Your task to perform on an android device: change the clock display to digital Image 0: 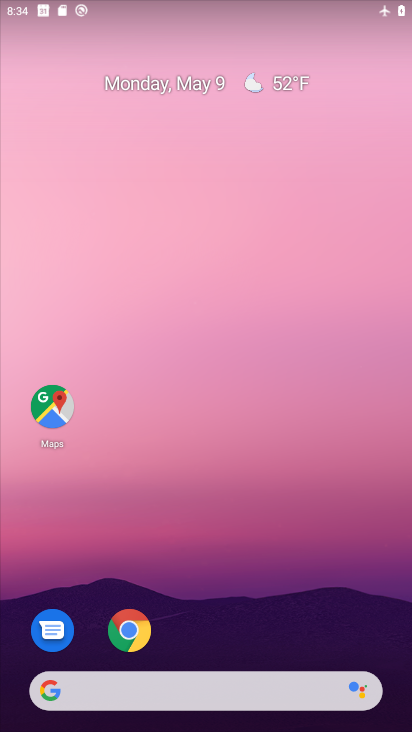
Step 0: drag from (232, 659) to (301, 129)
Your task to perform on an android device: change the clock display to digital Image 1: 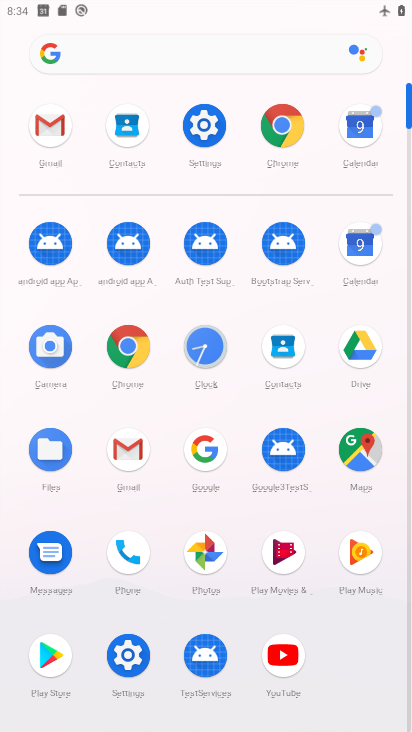
Step 1: click (202, 352)
Your task to perform on an android device: change the clock display to digital Image 2: 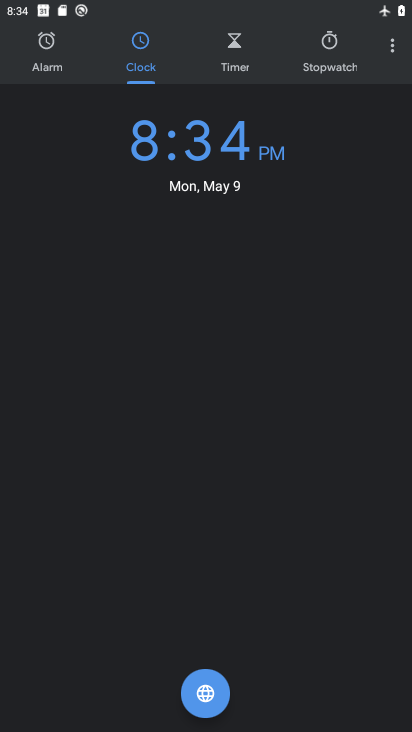
Step 2: click (386, 50)
Your task to perform on an android device: change the clock display to digital Image 3: 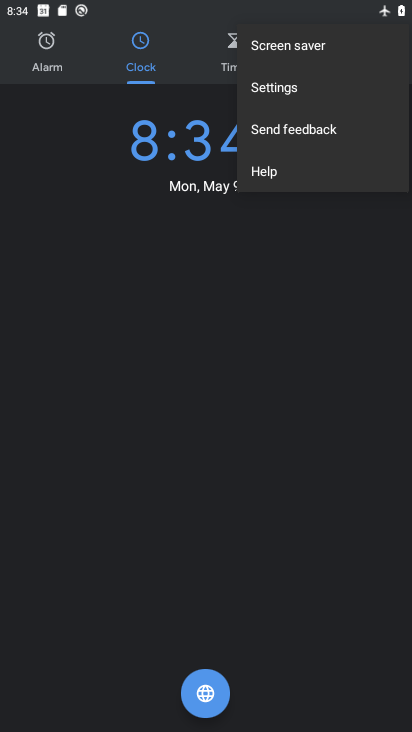
Step 3: click (281, 97)
Your task to perform on an android device: change the clock display to digital Image 4: 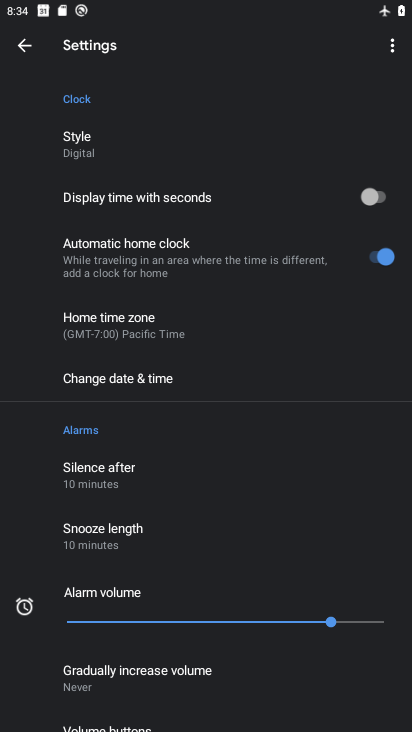
Step 4: click (107, 146)
Your task to perform on an android device: change the clock display to digital Image 5: 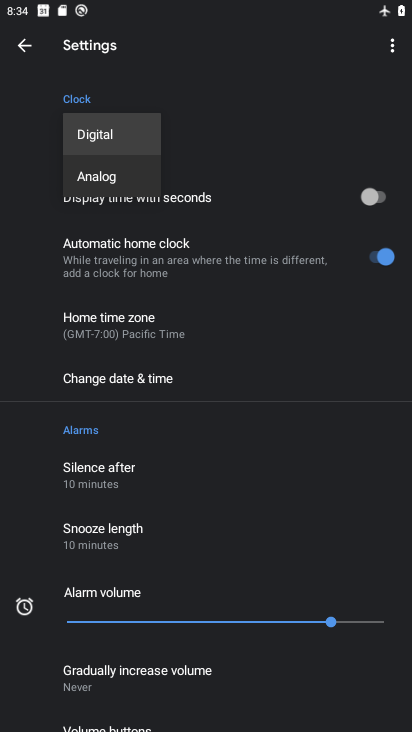
Step 5: task complete